Your task to perform on an android device: Search for "logitech g502" on walmart.com, select the first entry, add it to the cart, then select checkout. Image 0: 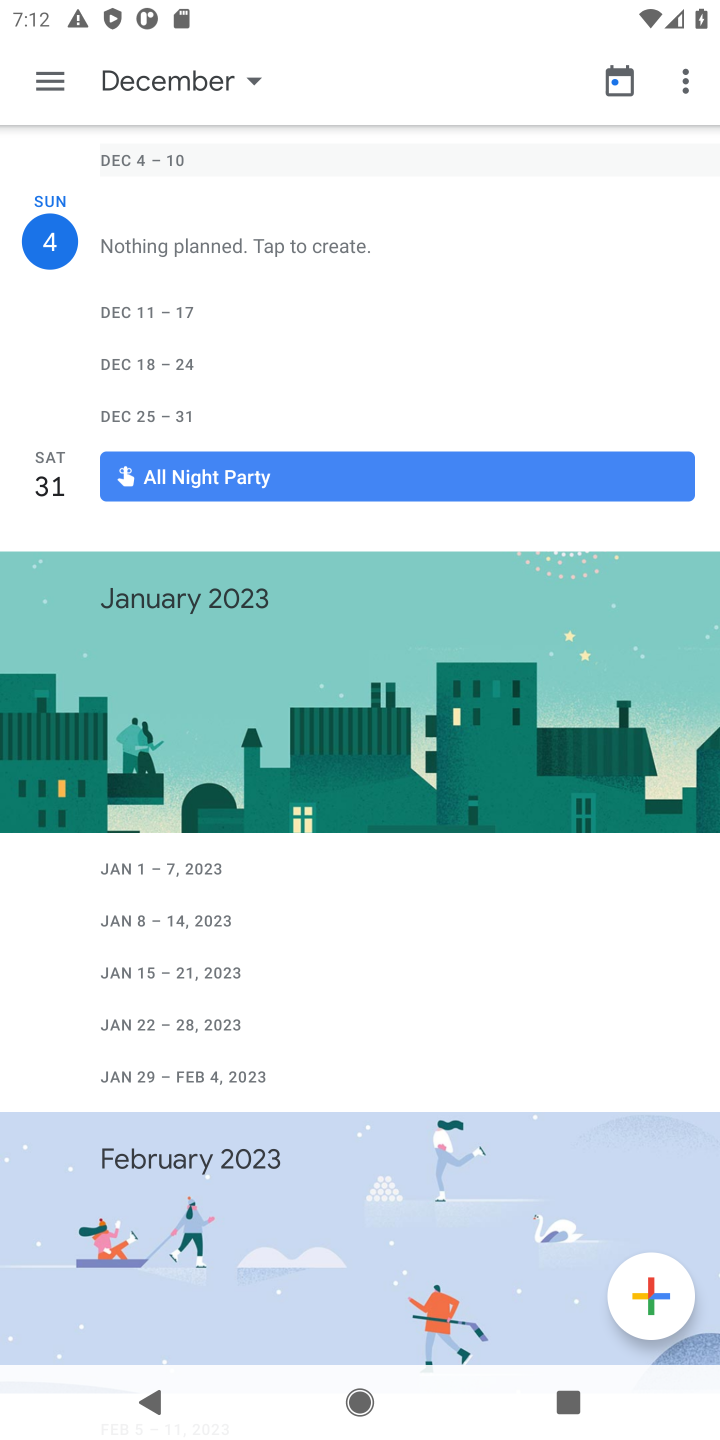
Step 0: press home button
Your task to perform on an android device: Search for "logitech g502" on walmart.com, select the first entry, add it to the cart, then select checkout. Image 1: 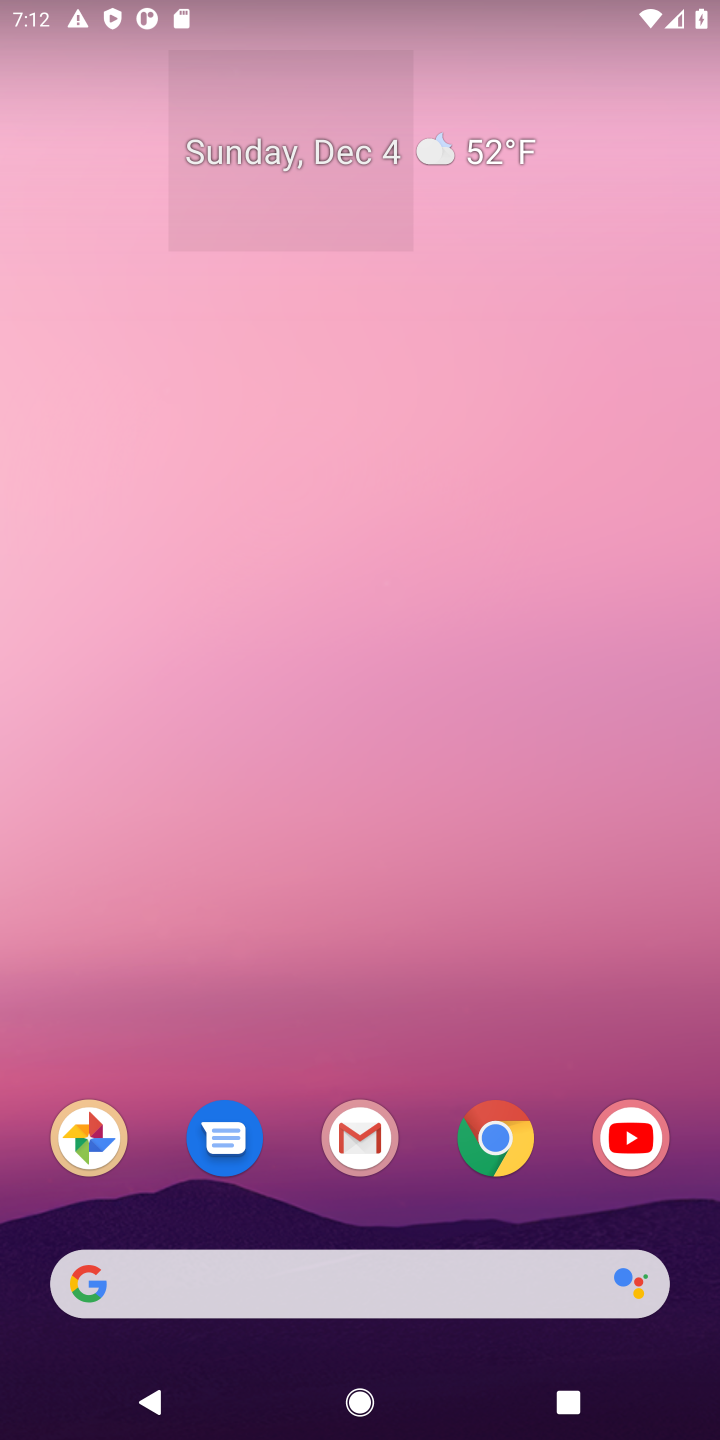
Step 1: click (489, 1162)
Your task to perform on an android device: Search for "logitech g502" on walmart.com, select the first entry, add it to the cart, then select checkout. Image 2: 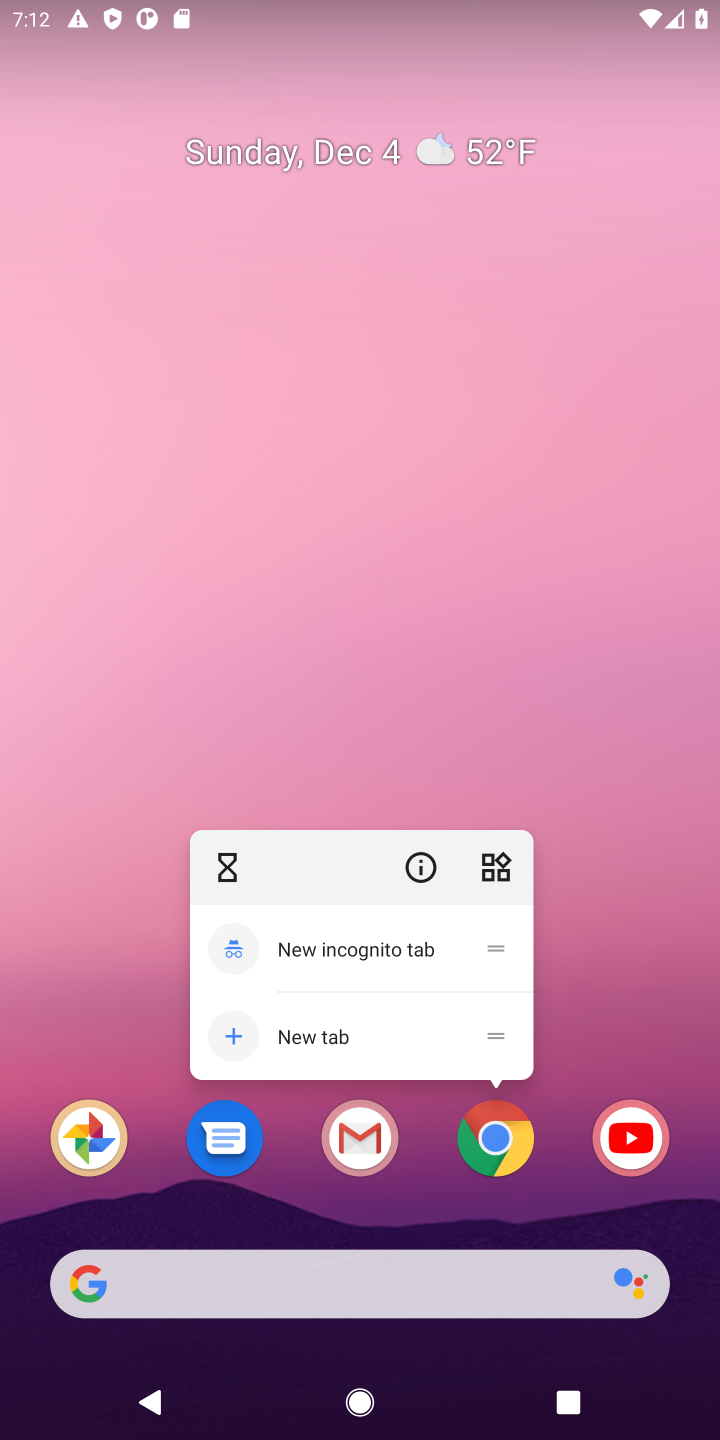
Step 2: click (489, 1162)
Your task to perform on an android device: Search for "logitech g502" on walmart.com, select the first entry, add it to the cart, then select checkout. Image 3: 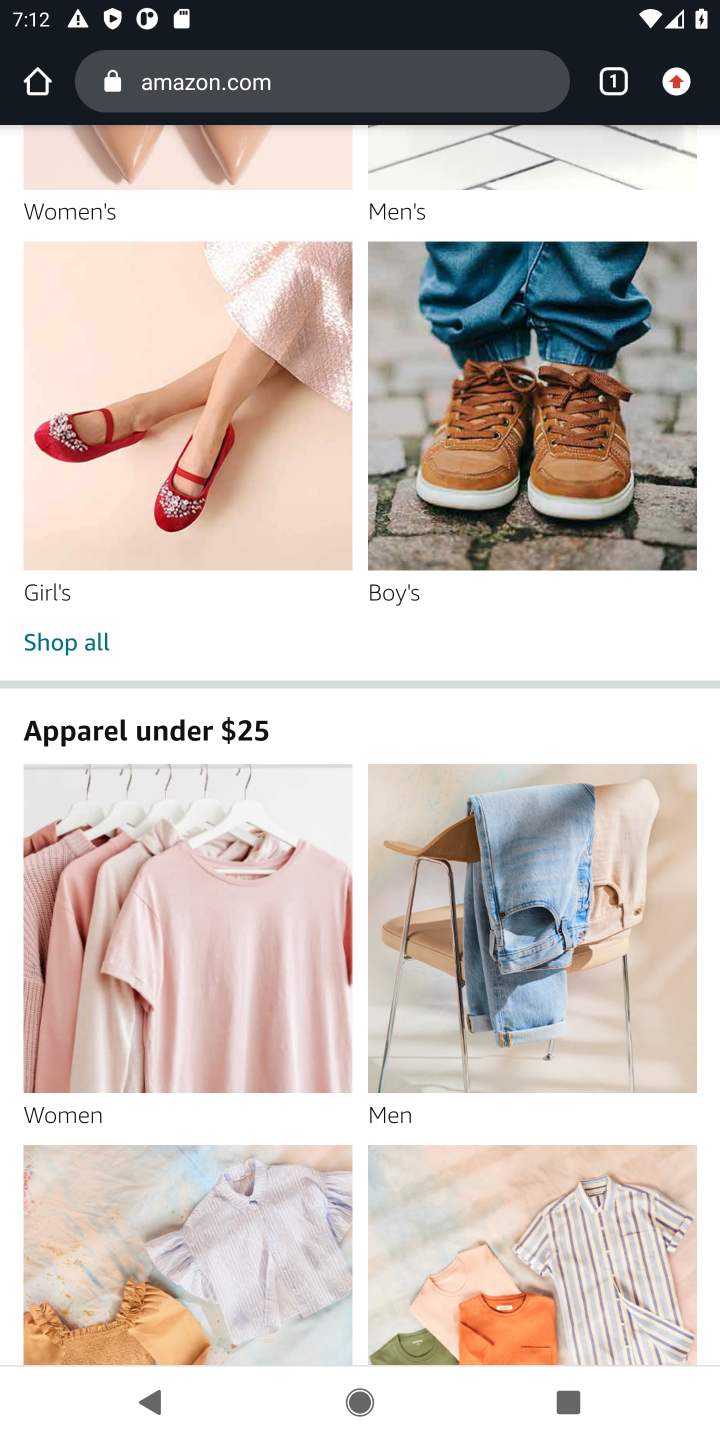
Step 3: click (452, 76)
Your task to perform on an android device: Search for "logitech g502" on walmart.com, select the first entry, add it to the cart, then select checkout. Image 4: 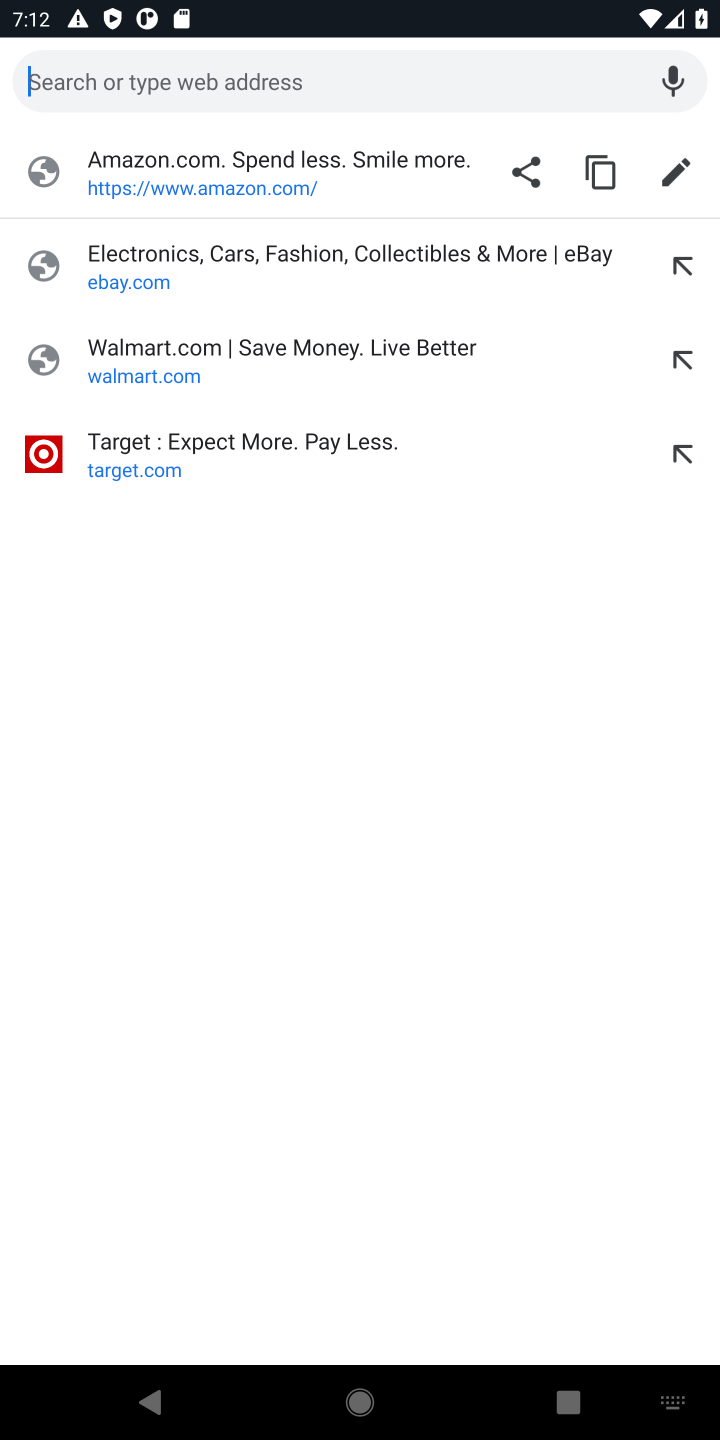
Step 4: click (215, 356)
Your task to perform on an android device: Search for "logitech g502" on walmart.com, select the first entry, add it to the cart, then select checkout. Image 5: 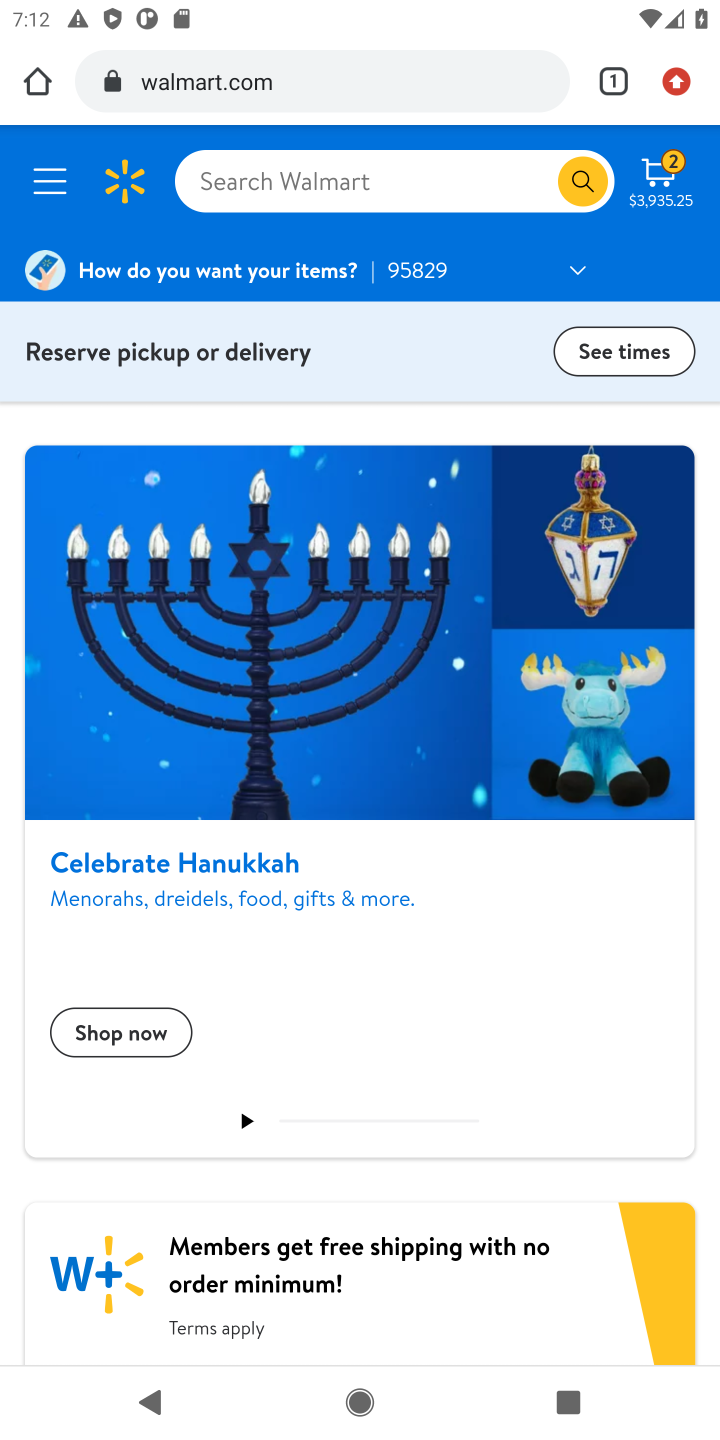
Step 5: click (523, 186)
Your task to perform on an android device: Search for "logitech g502" on walmart.com, select the first entry, add it to the cart, then select checkout. Image 6: 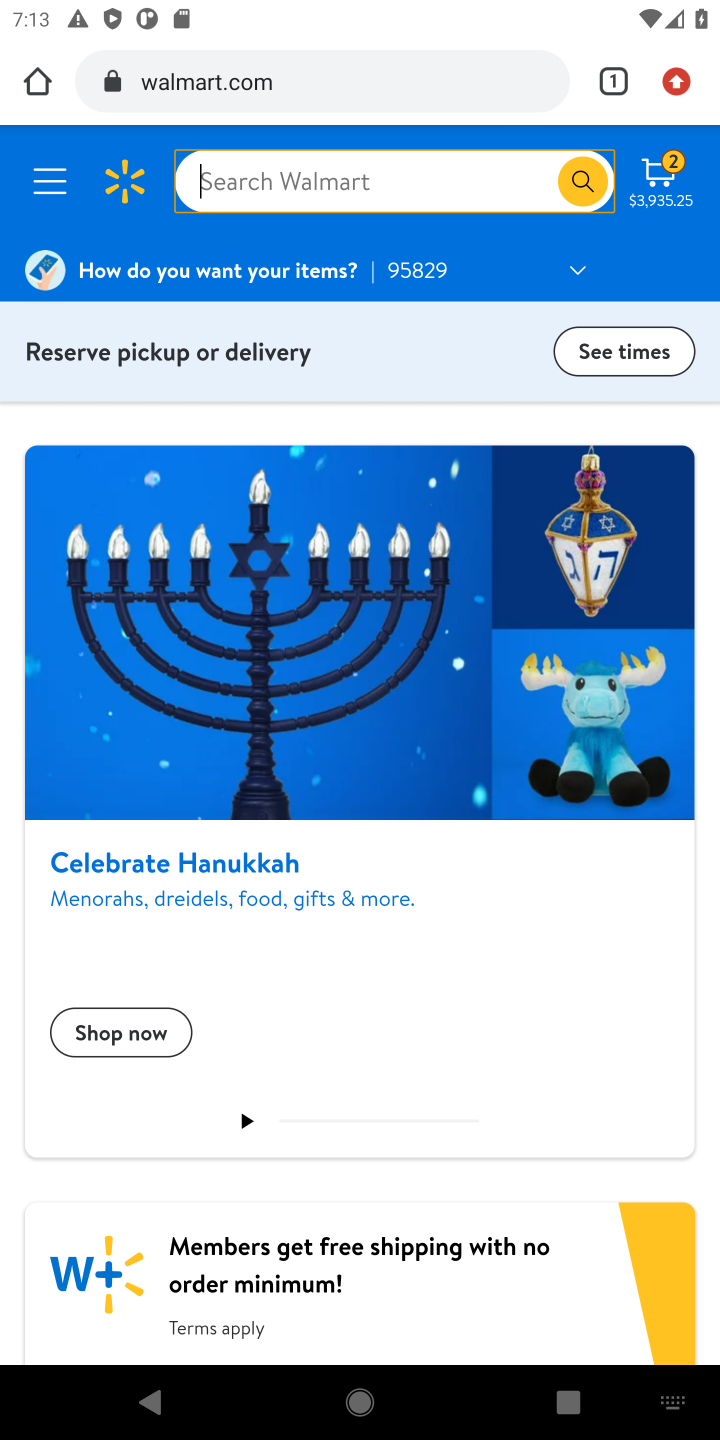
Step 6: press enter
Your task to perform on an android device: Search for "logitech g502" on walmart.com, select the first entry, add it to the cart, then select checkout. Image 7: 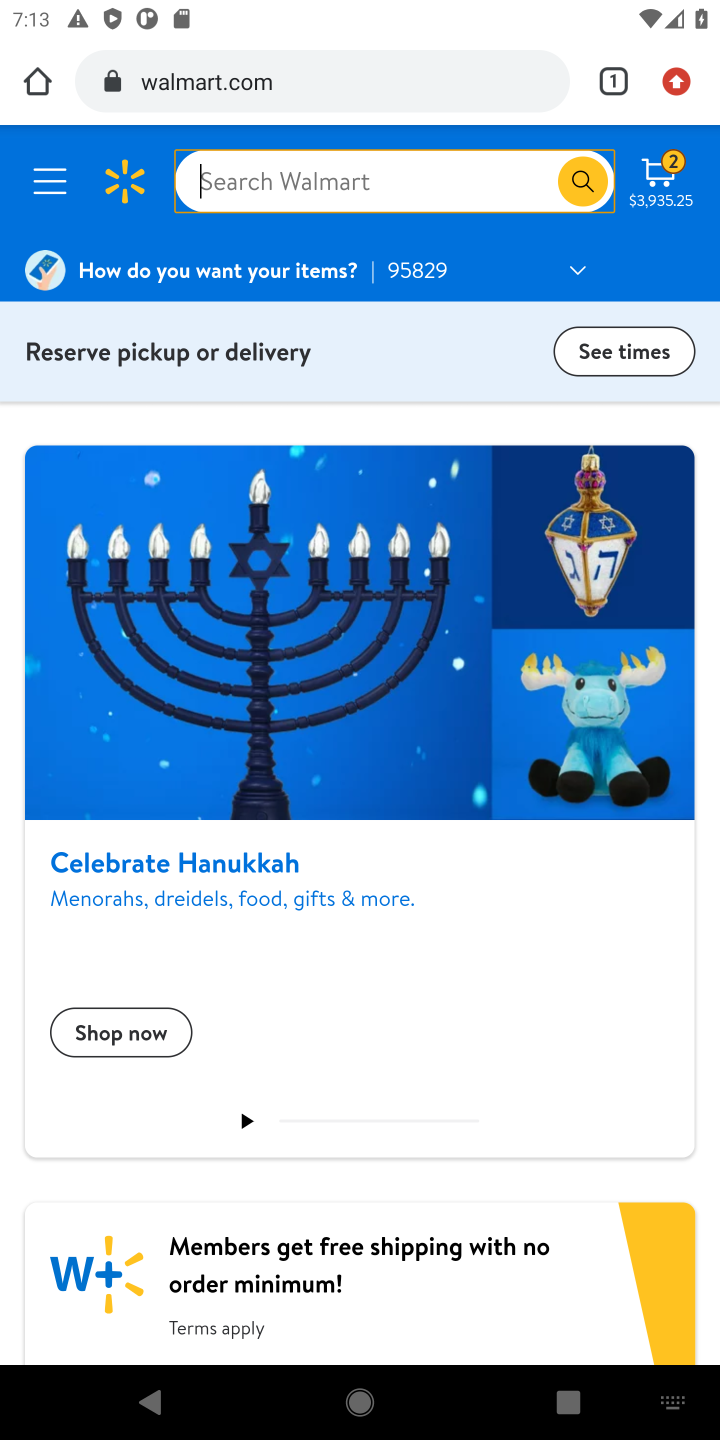
Step 7: type "logitech g502"
Your task to perform on an android device: Search for "logitech g502" on walmart.com, select the first entry, add it to the cart, then select checkout. Image 8: 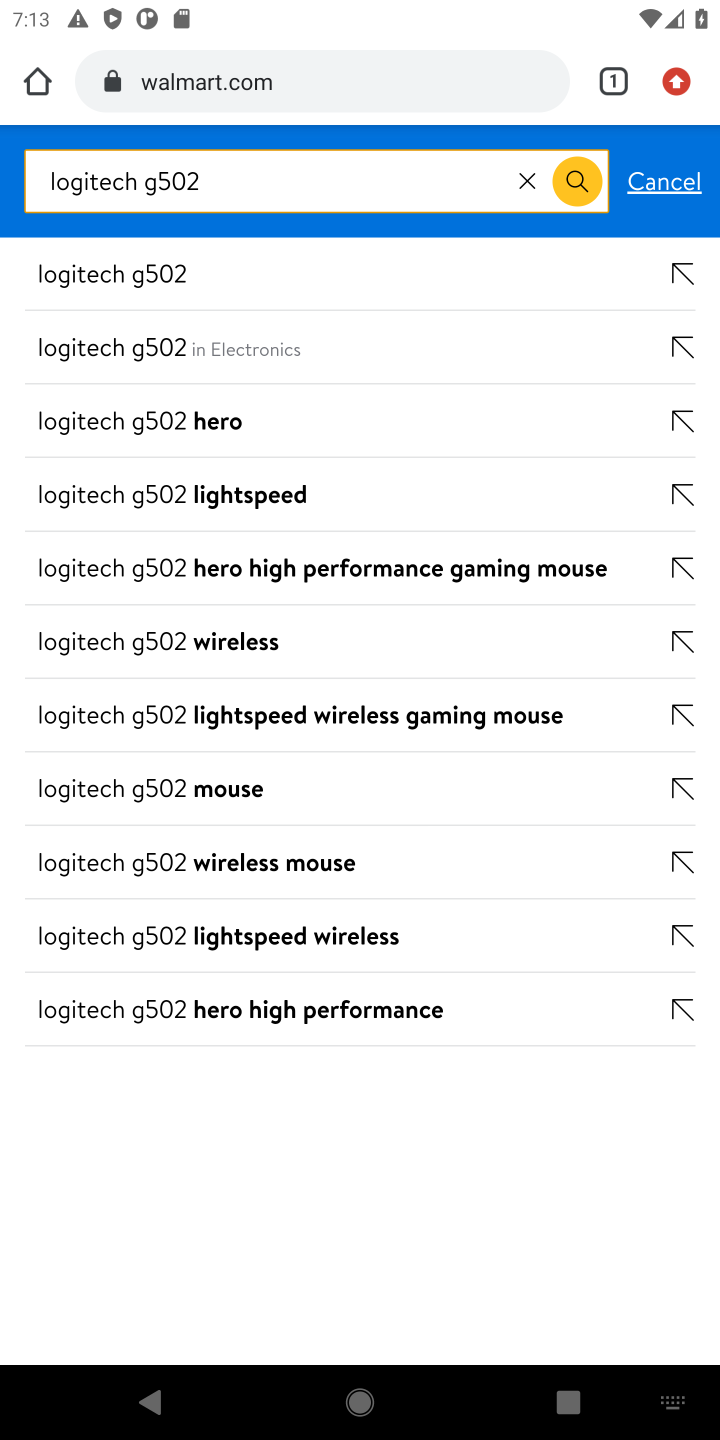
Step 8: click (135, 270)
Your task to perform on an android device: Search for "logitech g502" on walmart.com, select the first entry, add it to the cart, then select checkout. Image 9: 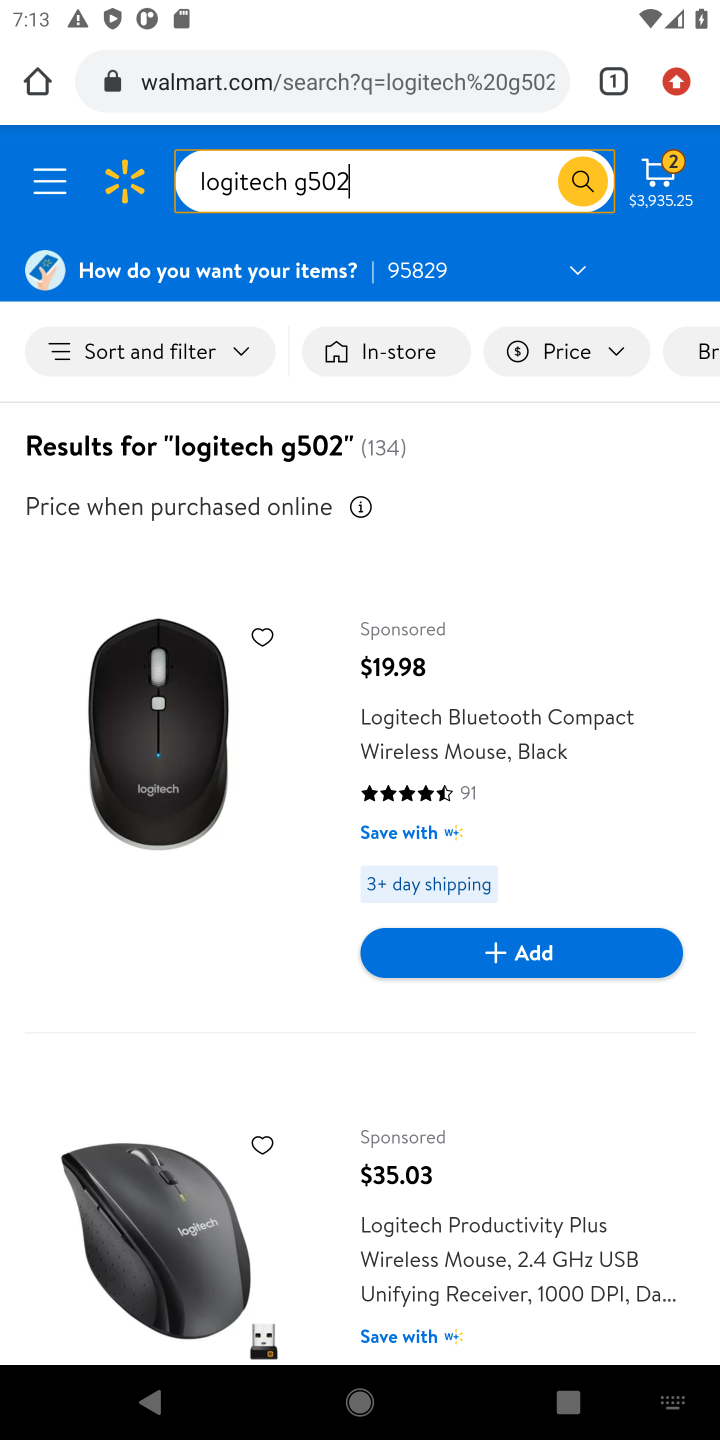
Step 9: drag from (582, 1107) to (598, 415)
Your task to perform on an android device: Search for "logitech g502" on walmart.com, select the first entry, add it to the cart, then select checkout. Image 10: 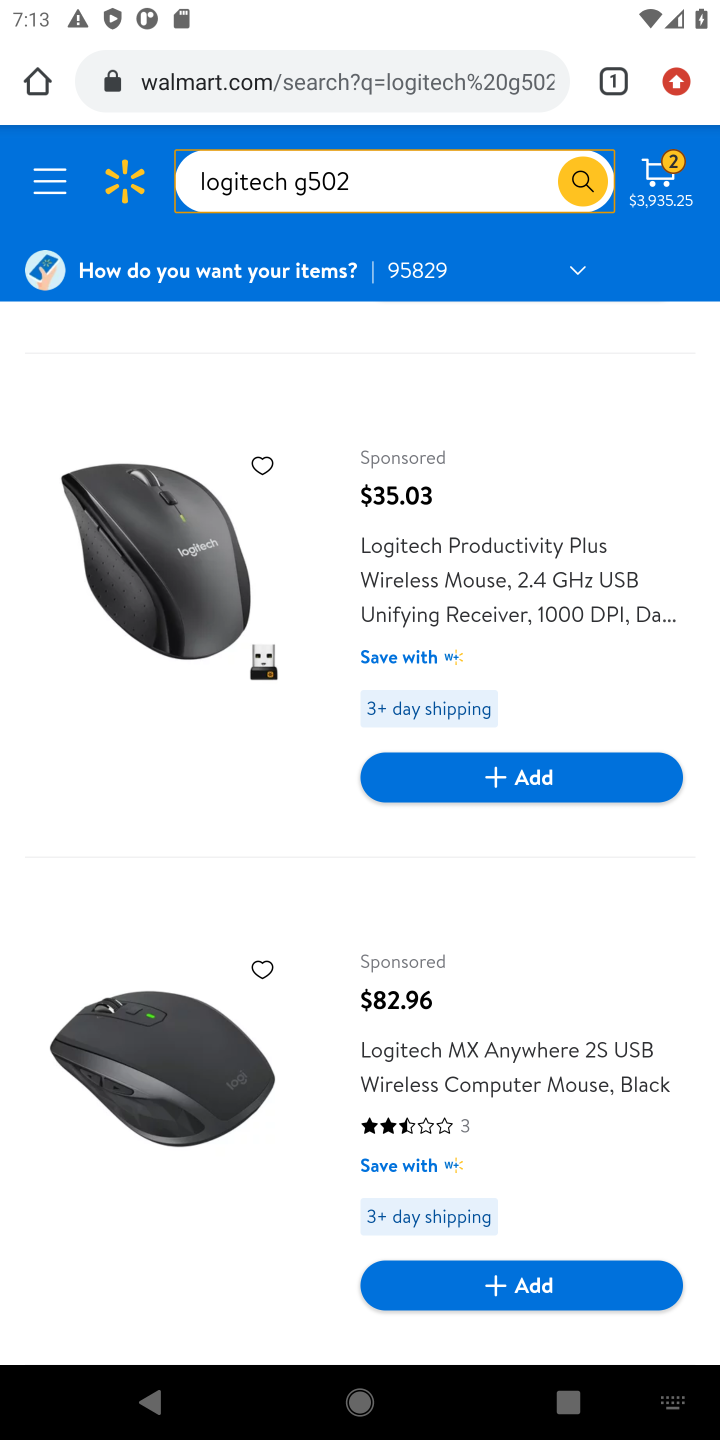
Step 10: drag from (598, 978) to (620, 419)
Your task to perform on an android device: Search for "logitech g502" on walmart.com, select the first entry, add it to the cart, then select checkout. Image 11: 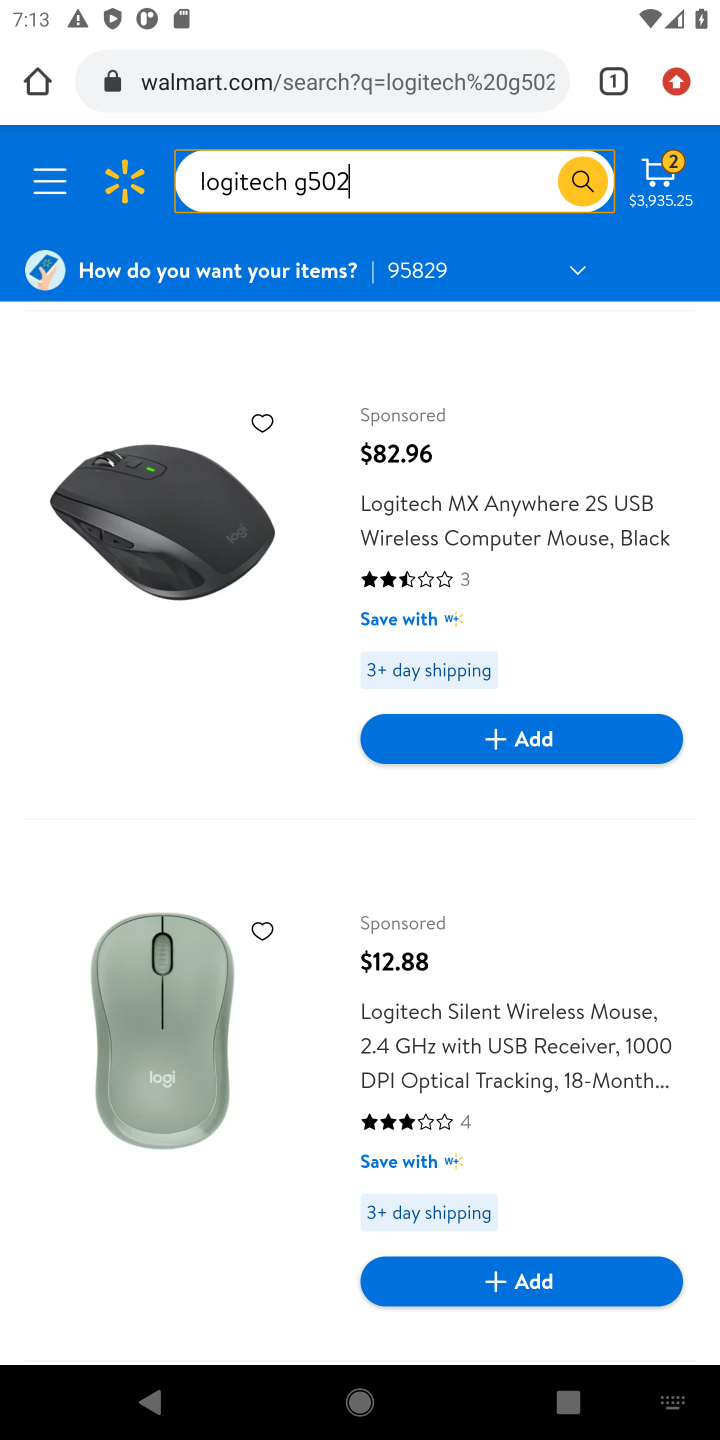
Step 11: drag from (594, 966) to (610, 428)
Your task to perform on an android device: Search for "logitech g502" on walmart.com, select the first entry, add it to the cart, then select checkout. Image 12: 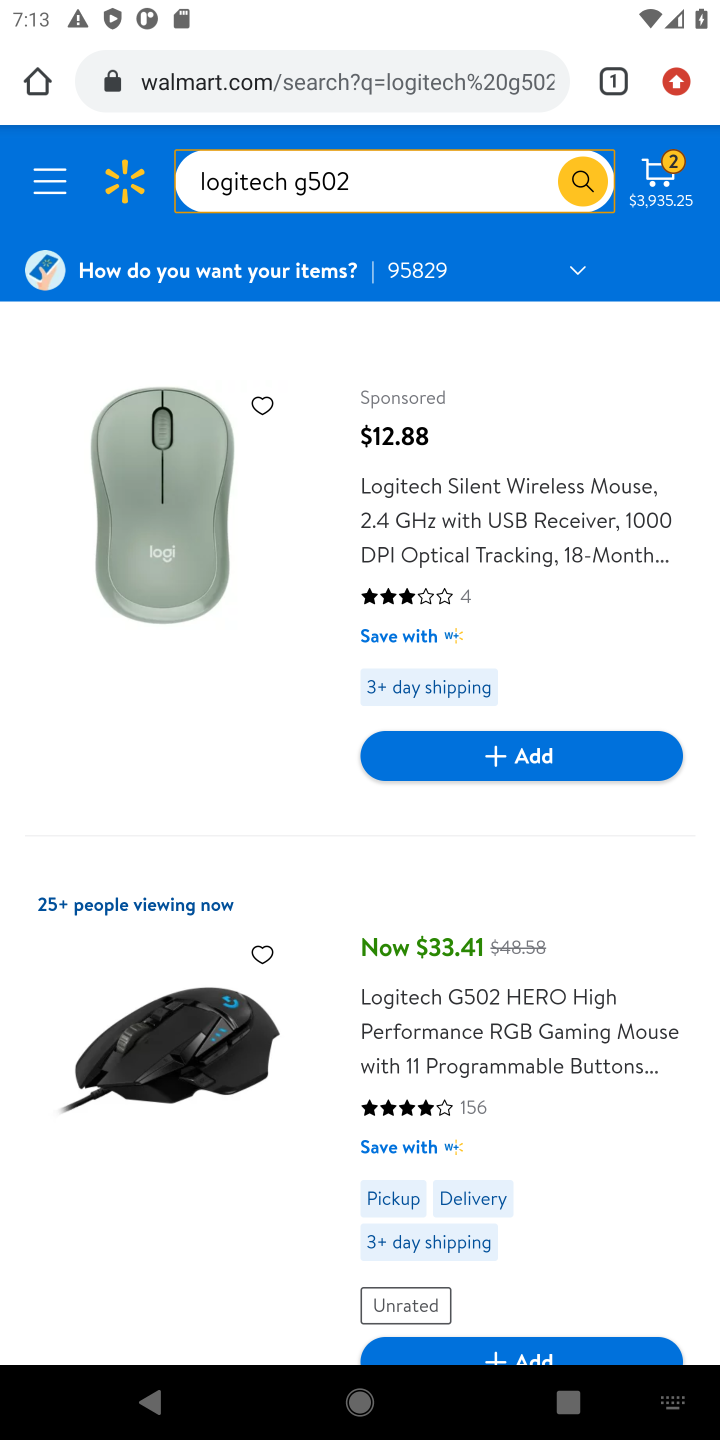
Step 12: click (199, 1063)
Your task to perform on an android device: Search for "logitech g502" on walmart.com, select the first entry, add it to the cart, then select checkout. Image 13: 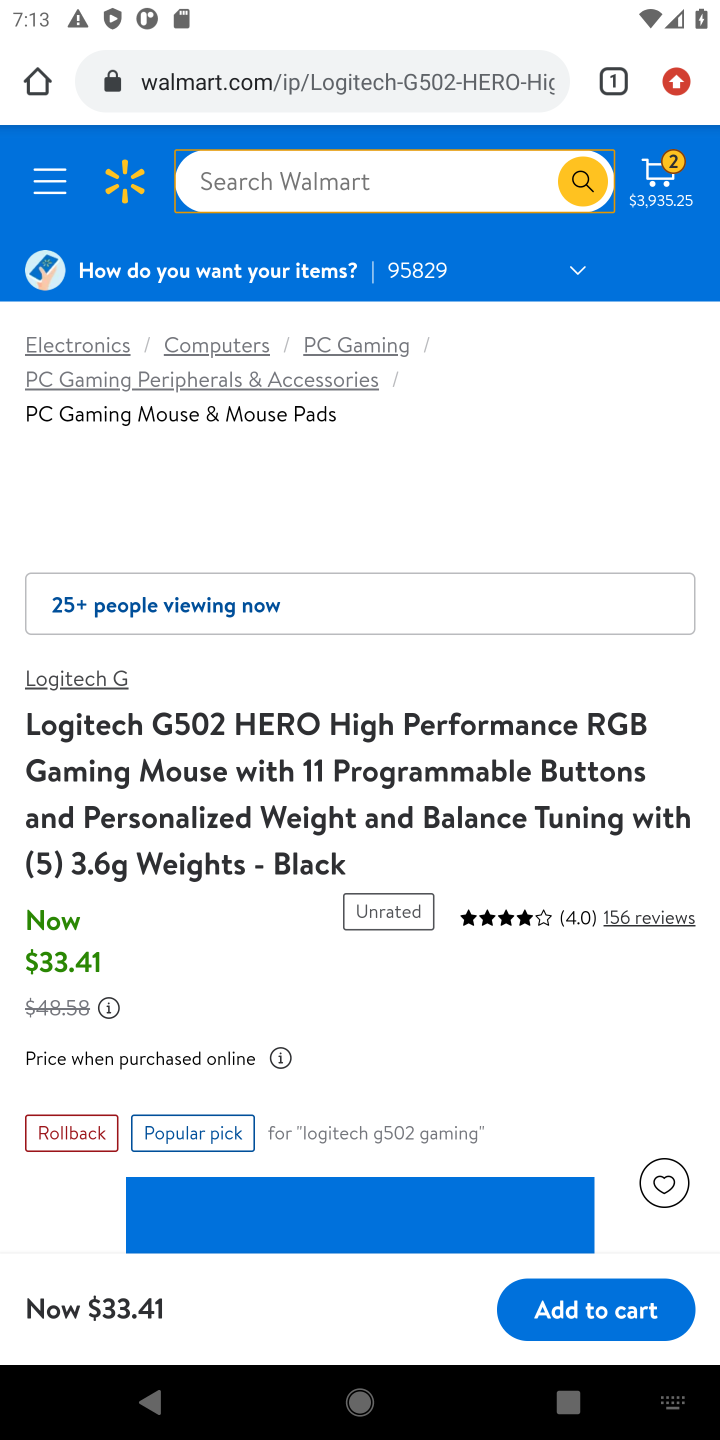
Step 13: drag from (579, 1029) to (514, 402)
Your task to perform on an android device: Search for "logitech g502" on walmart.com, select the first entry, add it to the cart, then select checkout. Image 14: 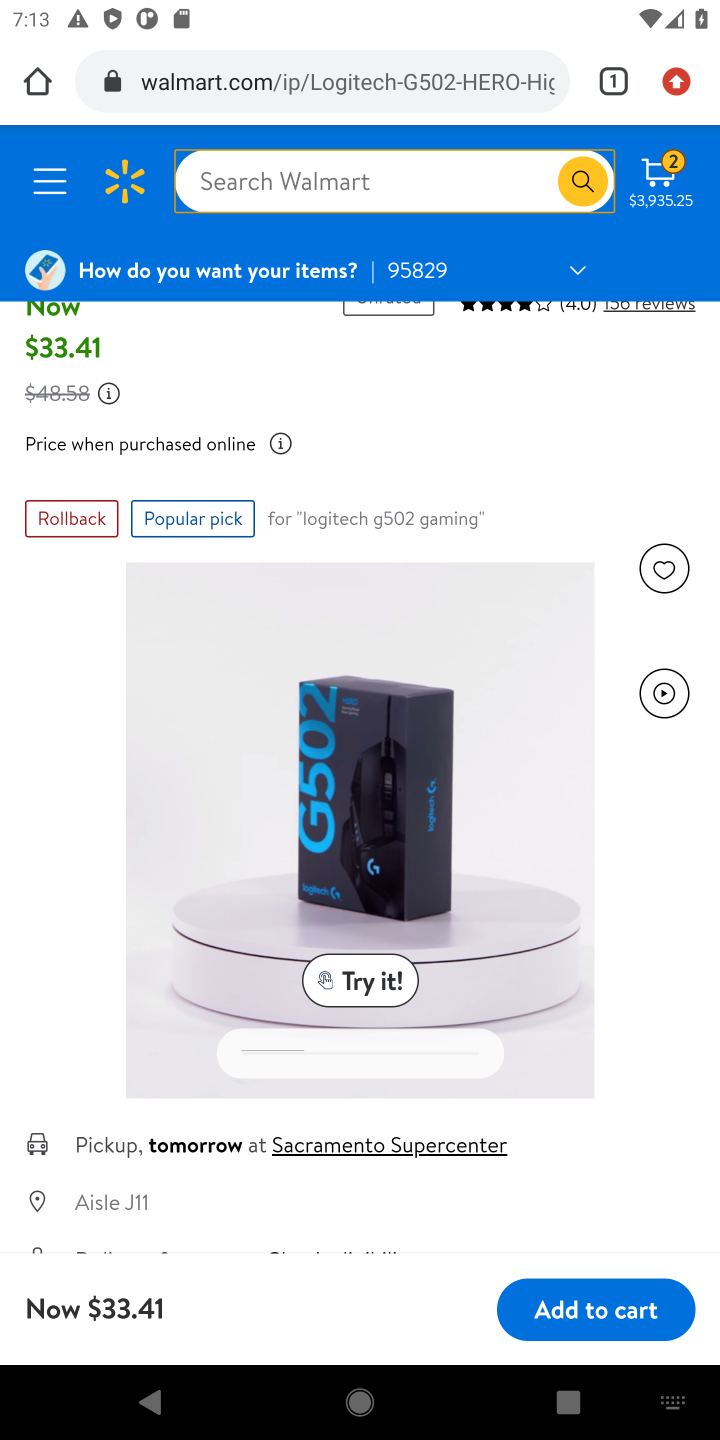
Step 14: click (598, 1304)
Your task to perform on an android device: Search for "logitech g502" on walmart.com, select the first entry, add it to the cart, then select checkout. Image 15: 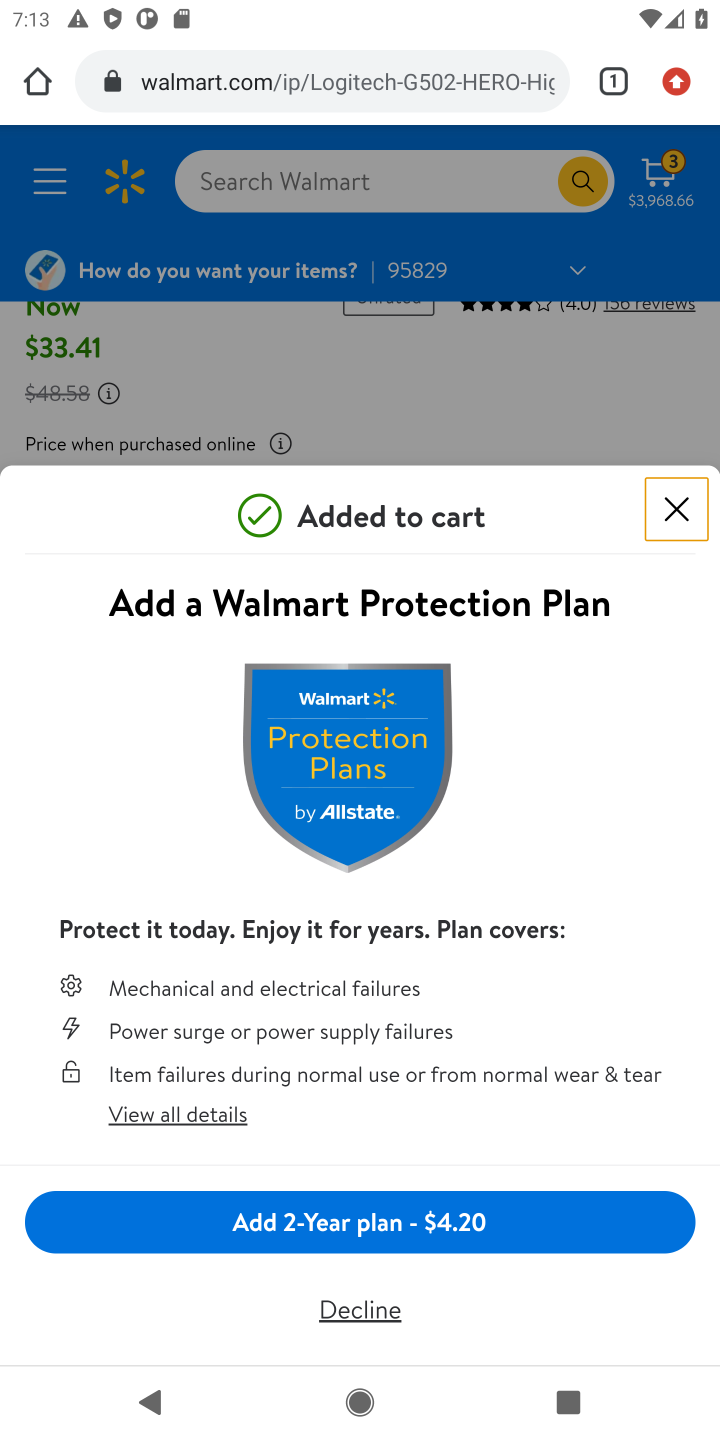
Step 15: click (670, 495)
Your task to perform on an android device: Search for "logitech g502" on walmart.com, select the first entry, add it to the cart, then select checkout. Image 16: 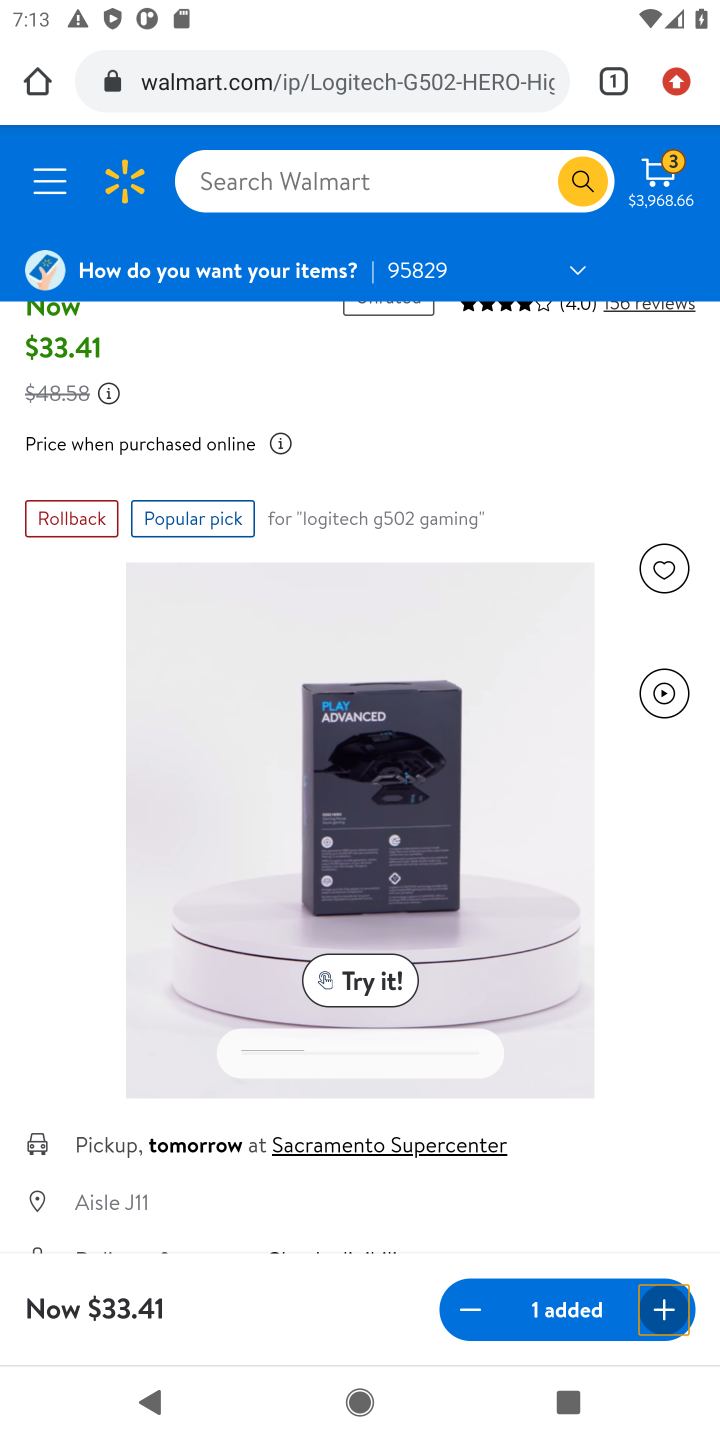
Step 16: click (658, 183)
Your task to perform on an android device: Search for "logitech g502" on walmart.com, select the first entry, add it to the cart, then select checkout. Image 17: 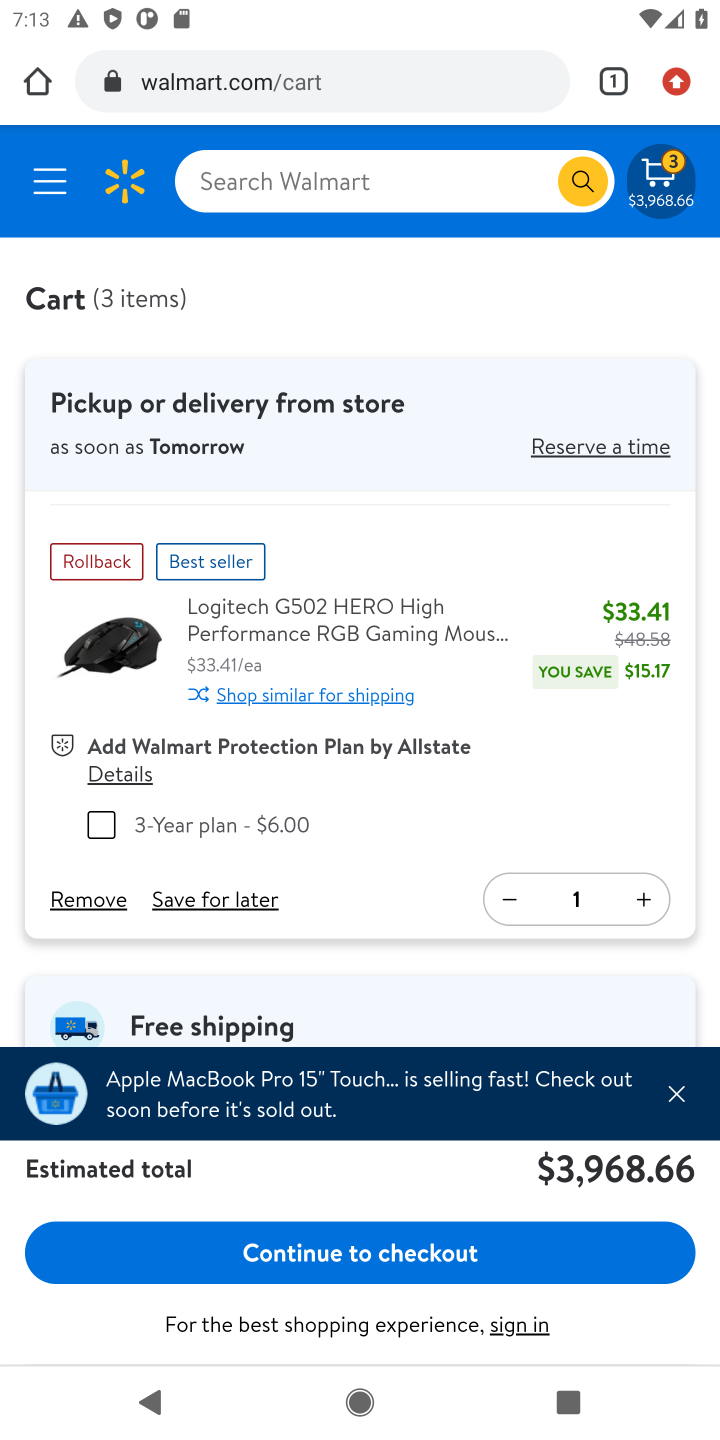
Step 17: click (405, 1242)
Your task to perform on an android device: Search for "logitech g502" on walmart.com, select the first entry, add it to the cart, then select checkout. Image 18: 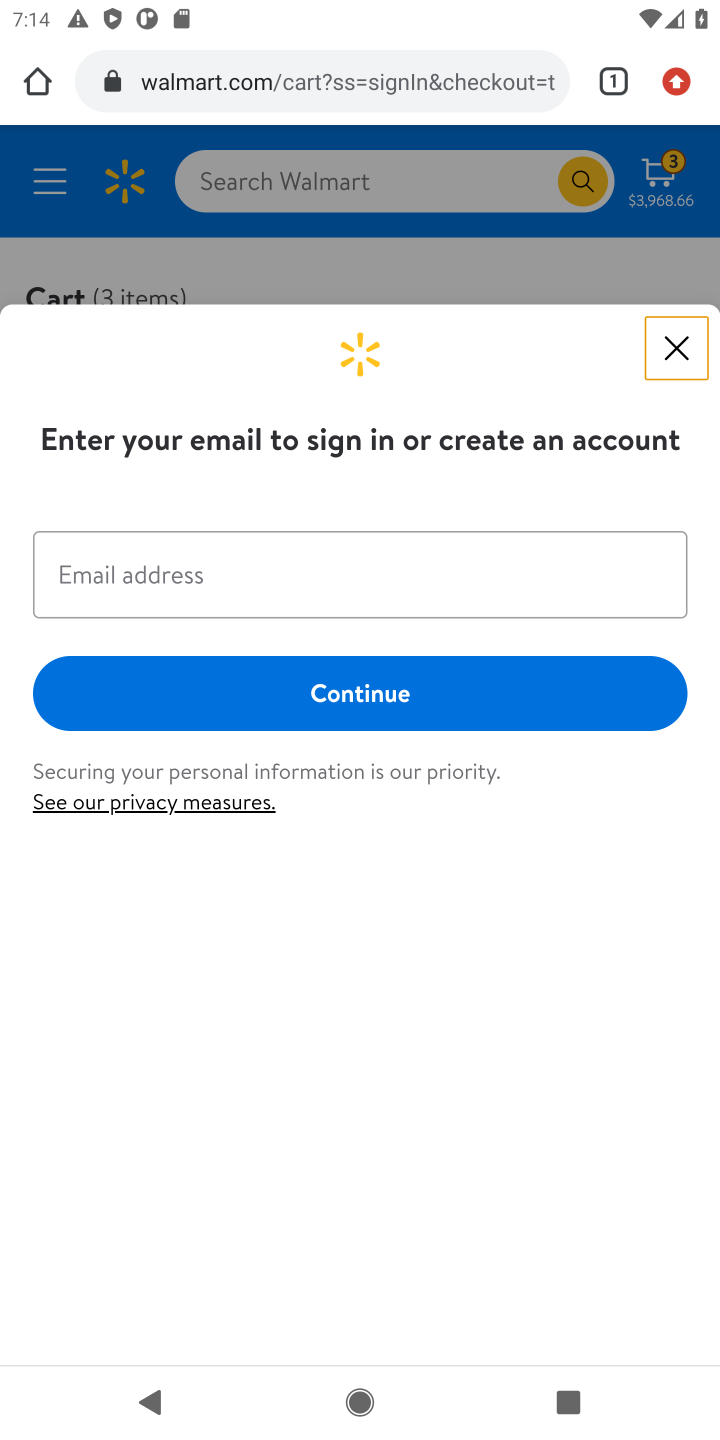
Step 18: task complete